Your task to perform on an android device: Open Youtube and go to the subscriptions tab Image 0: 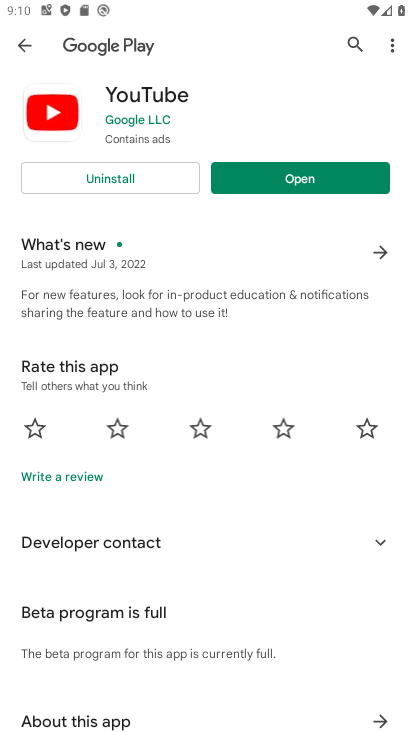
Step 0: click (354, 173)
Your task to perform on an android device: Open Youtube and go to the subscriptions tab Image 1: 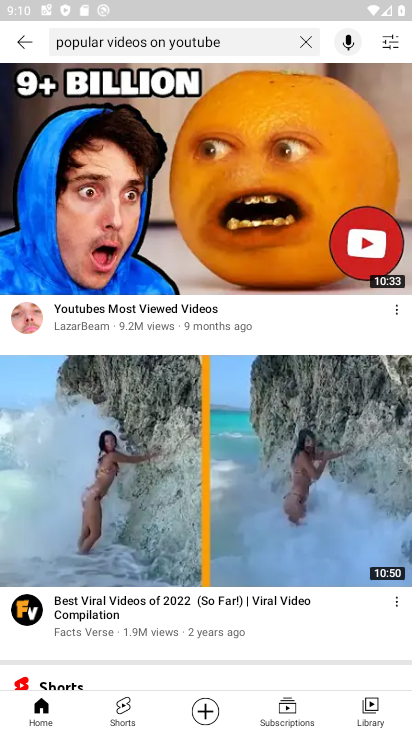
Step 1: click (273, 718)
Your task to perform on an android device: Open Youtube and go to the subscriptions tab Image 2: 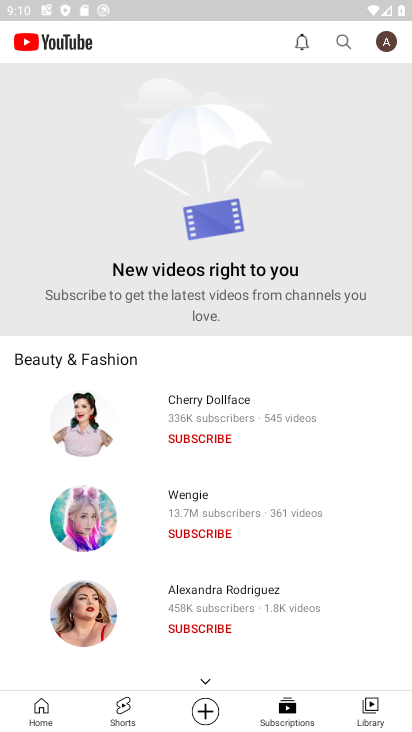
Step 2: task complete